Your task to perform on an android device: See recent photos Image 0: 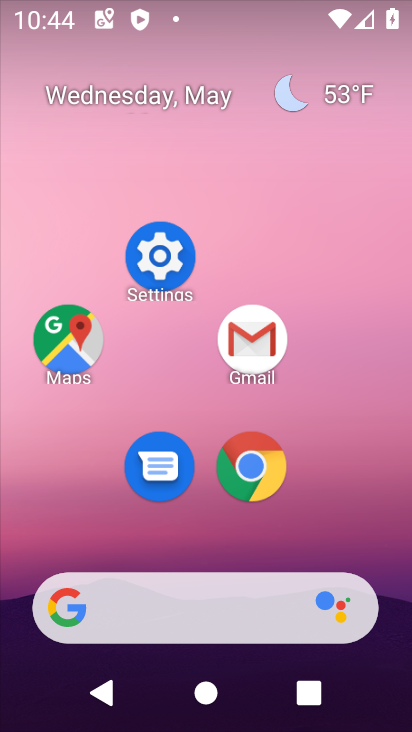
Step 0: drag from (204, 524) to (304, 200)
Your task to perform on an android device: See recent photos Image 1: 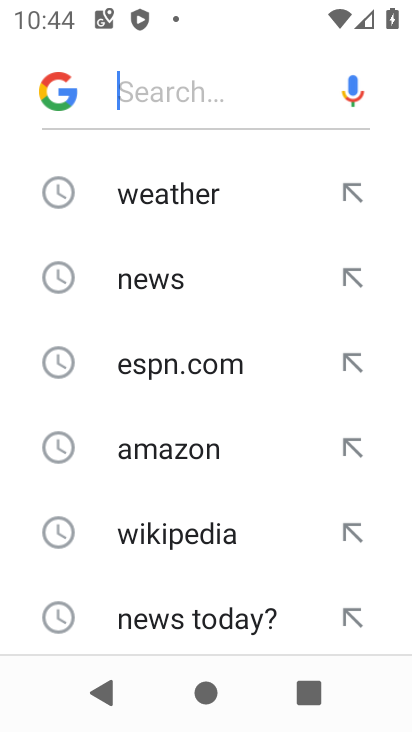
Step 1: drag from (192, 496) to (285, 200)
Your task to perform on an android device: See recent photos Image 2: 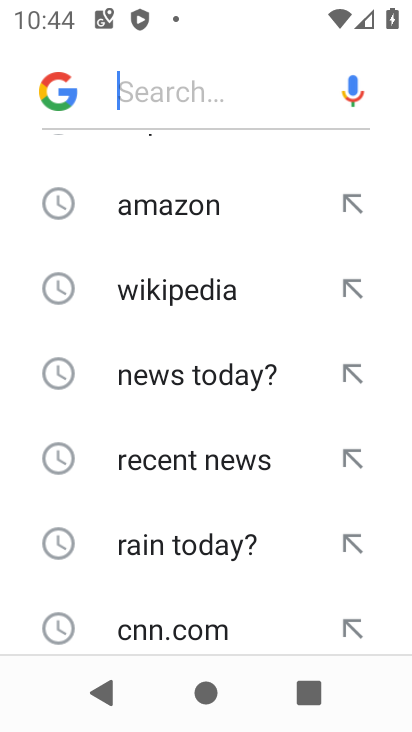
Step 2: click (198, 470)
Your task to perform on an android device: See recent photos Image 3: 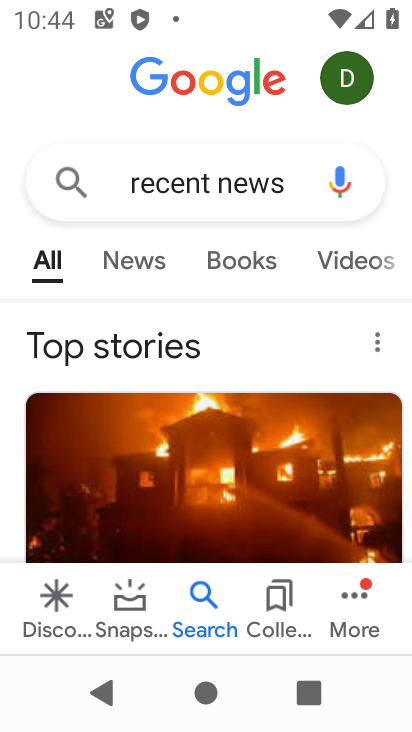
Step 3: drag from (228, 495) to (361, 279)
Your task to perform on an android device: See recent photos Image 4: 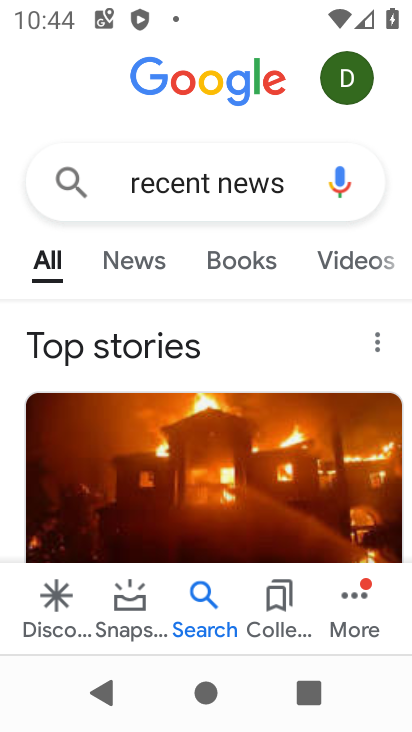
Step 4: drag from (314, 456) to (0, 391)
Your task to perform on an android device: See recent photos Image 5: 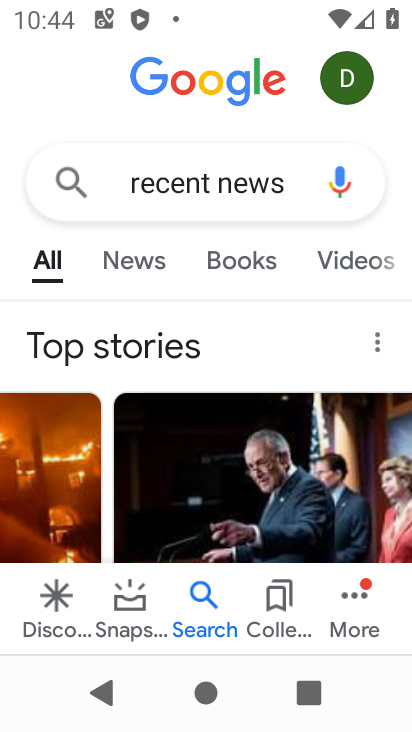
Step 5: drag from (170, 491) to (331, 1)
Your task to perform on an android device: See recent photos Image 6: 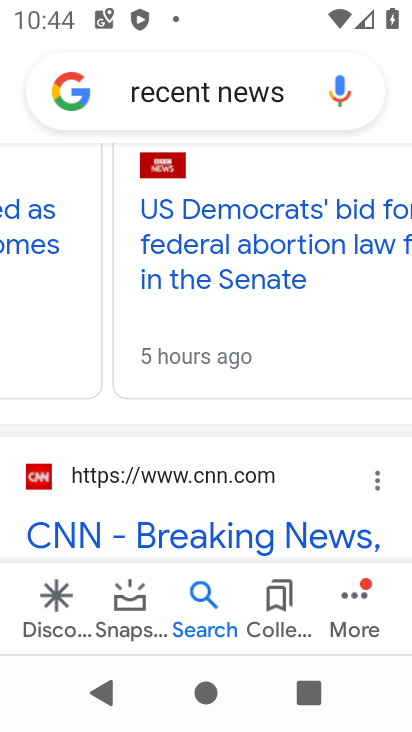
Step 6: click (220, 279)
Your task to perform on an android device: See recent photos Image 7: 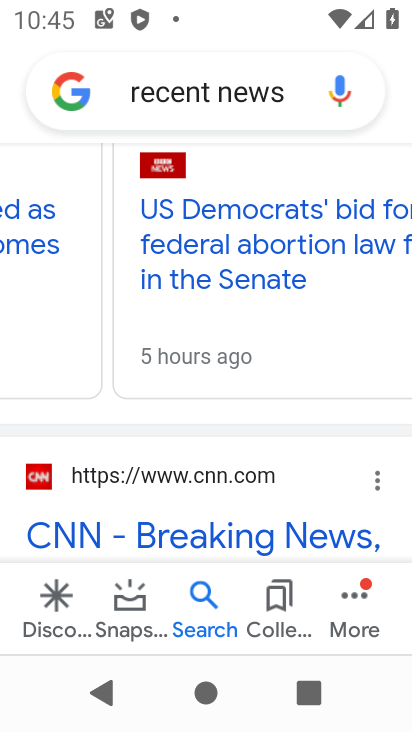
Step 7: task complete